Your task to perform on an android device: When is my next meeting? Image 0: 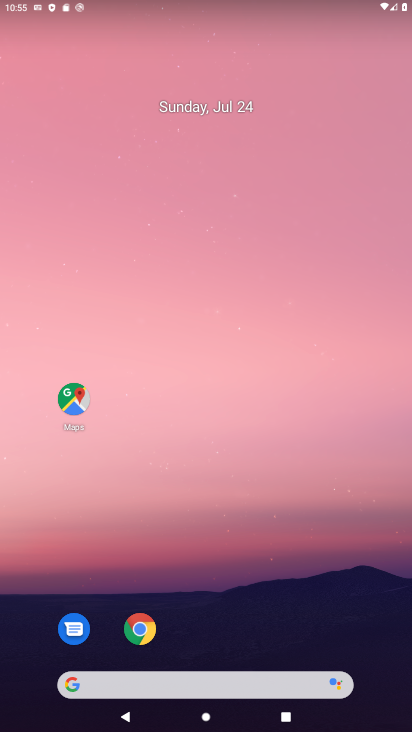
Step 0: press home button
Your task to perform on an android device: When is my next meeting? Image 1: 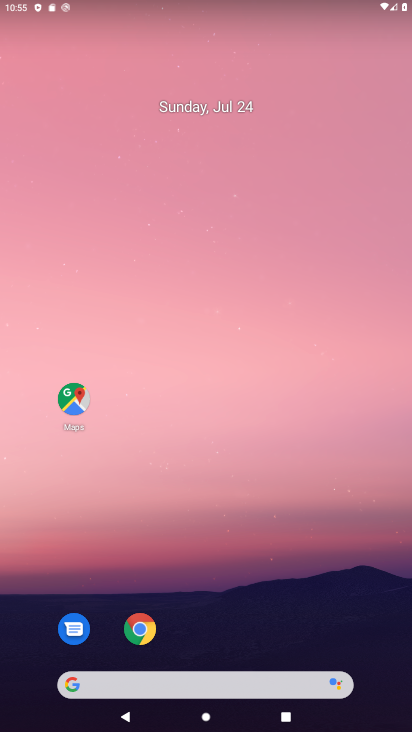
Step 1: drag from (284, 611) to (277, 66)
Your task to perform on an android device: When is my next meeting? Image 2: 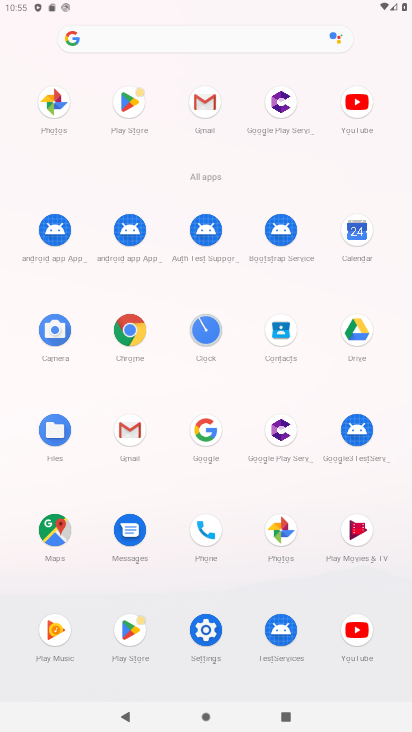
Step 2: click (348, 228)
Your task to perform on an android device: When is my next meeting? Image 3: 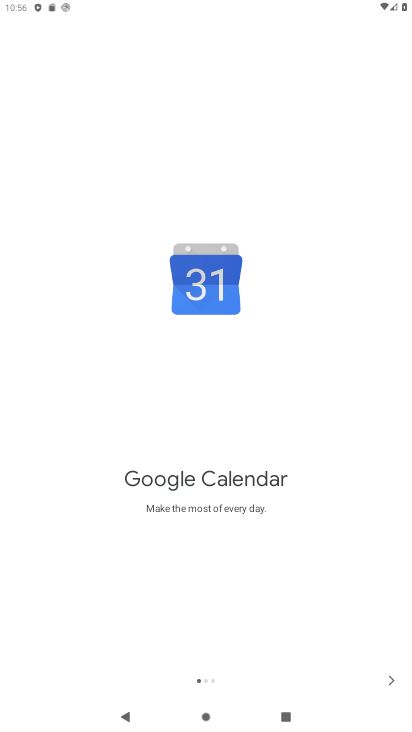
Step 3: click (391, 673)
Your task to perform on an android device: When is my next meeting? Image 4: 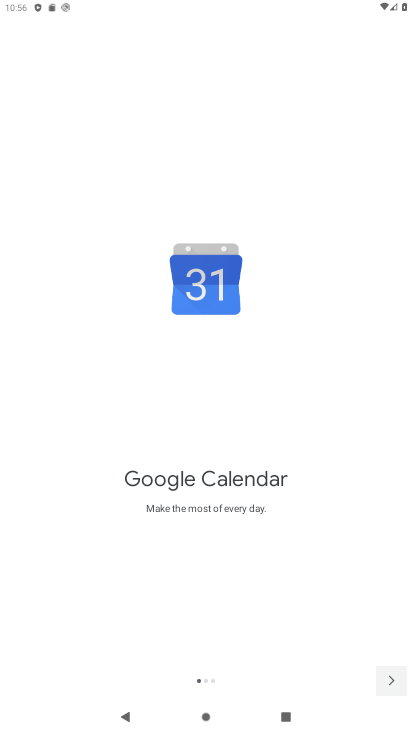
Step 4: click (391, 673)
Your task to perform on an android device: When is my next meeting? Image 5: 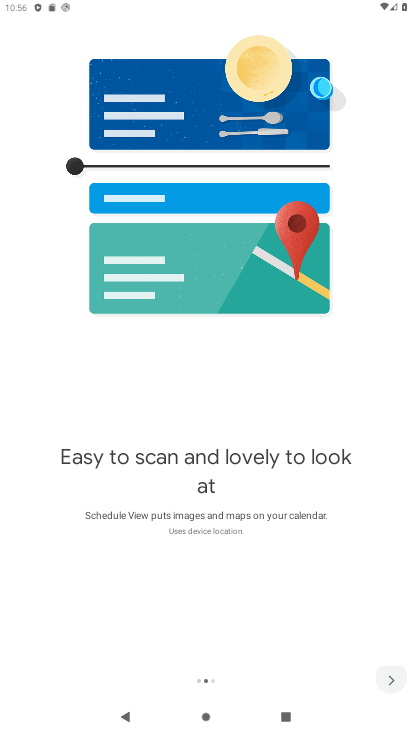
Step 5: click (391, 673)
Your task to perform on an android device: When is my next meeting? Image 6: 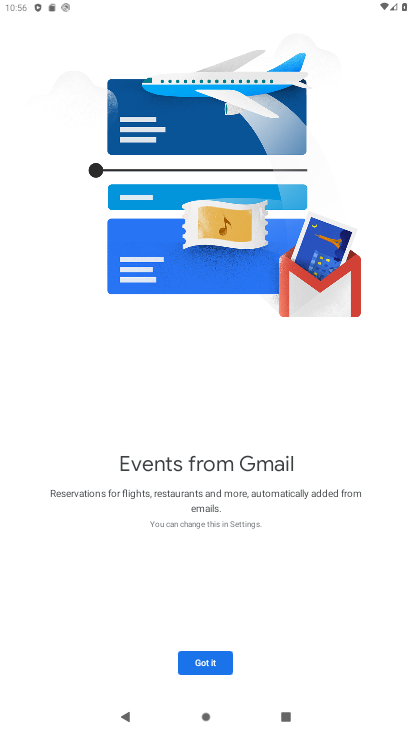
Step 6: click (219, 659)
Your task to perform on an android device: When is my next meeting? Image 7: 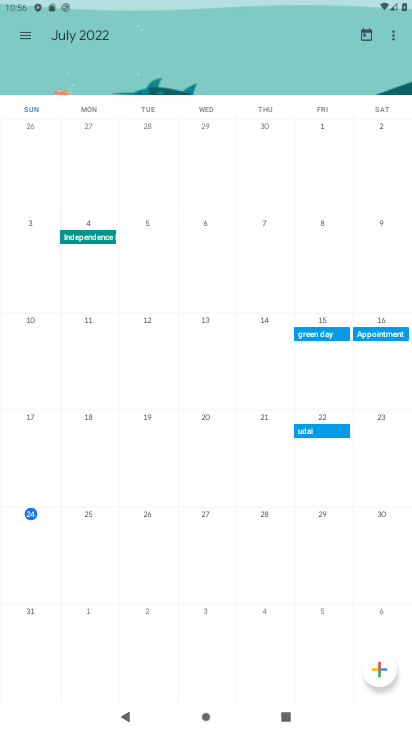
Step 7: click (16, 36)
Your task to perform on an android device: When is my next meeting? Image 8: 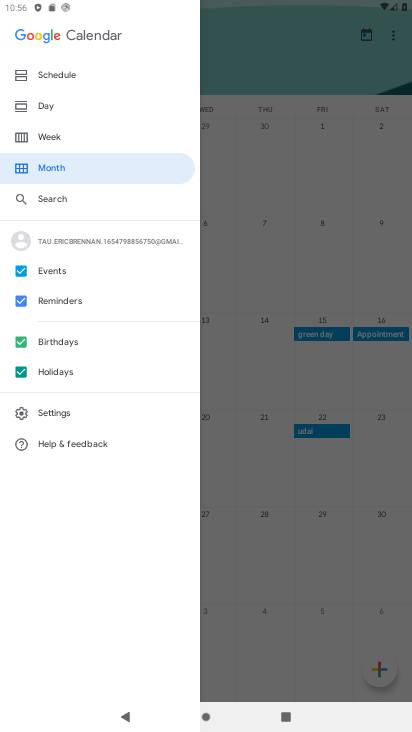
Step 8: click (238, 271)
Your task to perform on an android device: When is my next meeting? Image 9: 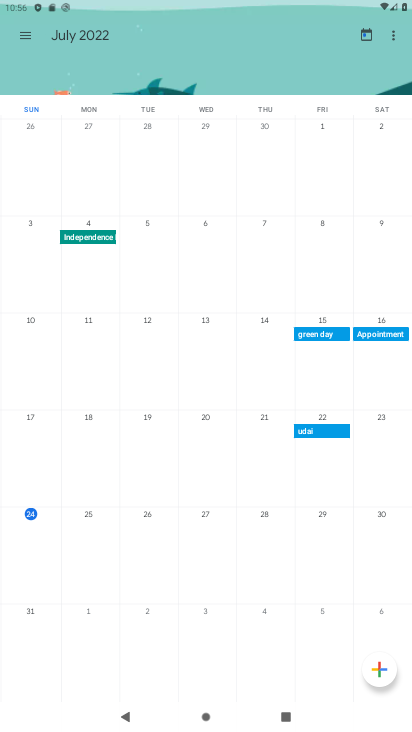
Step 9: click (87, 521)
Your task to perform on an android device: When is my next meeting? Image 10: 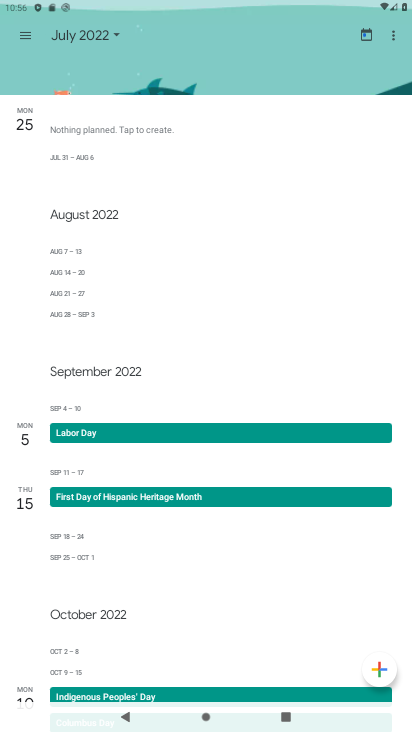
Step 10: click (19, 37)
Your task to perform on an android device: When is my next meeting? Image 11: 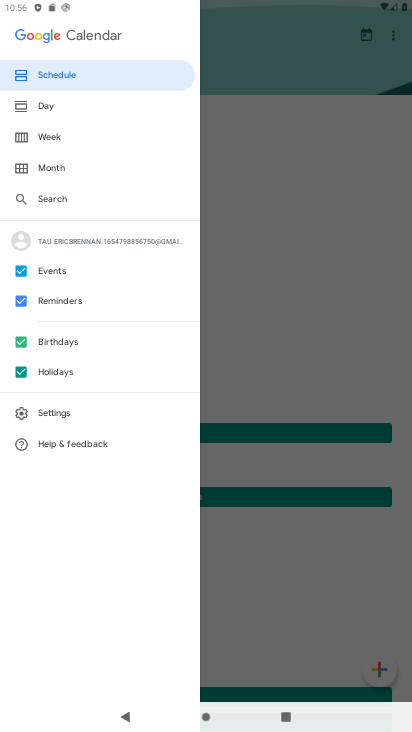
Step 11: click (61, 76)
Your task to perform on an android device: When is my next meeting? Image 12: 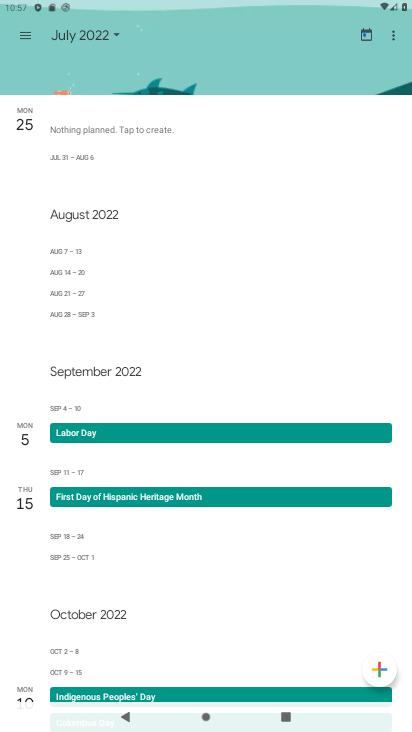
Step 12: task complete